Your task to perform on an android device: uninstall "PlayWell" Image 0: 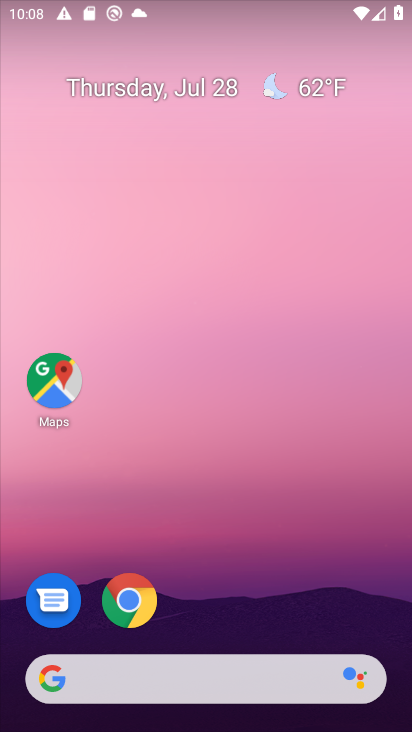
Step 0: drag from (241, 640) to (262, 42)
Your task to perform on an android device: uninstall "PlayWell" Image 1: 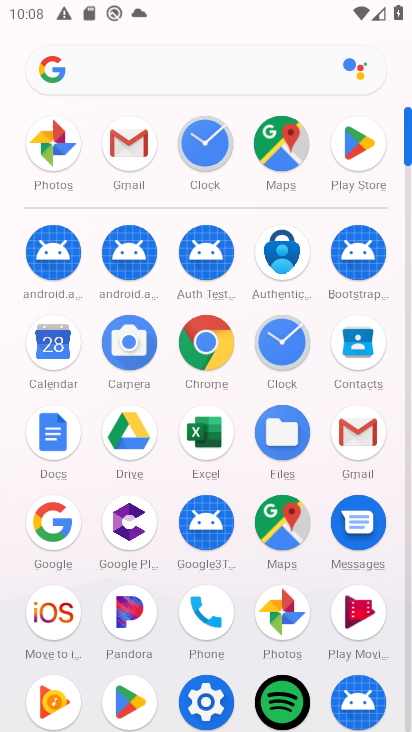
Step 1: click (354, 151)
Your task to perform on an android device: uninstall "PlayWell" Image 2: 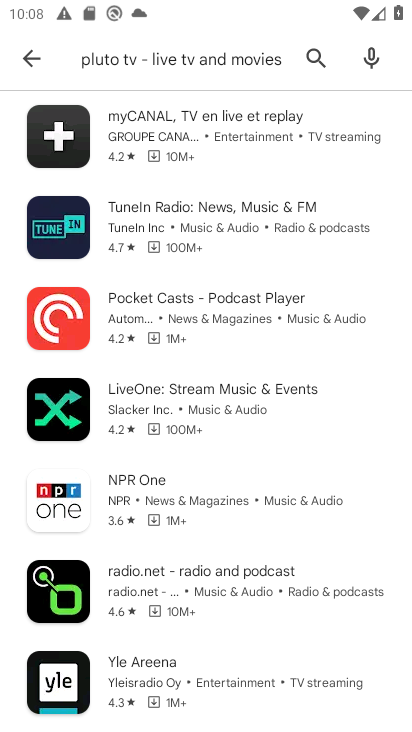
Step 2: click (317, 59)
Your task to perform on an android device: uninstall "PlayWell" Image 3: 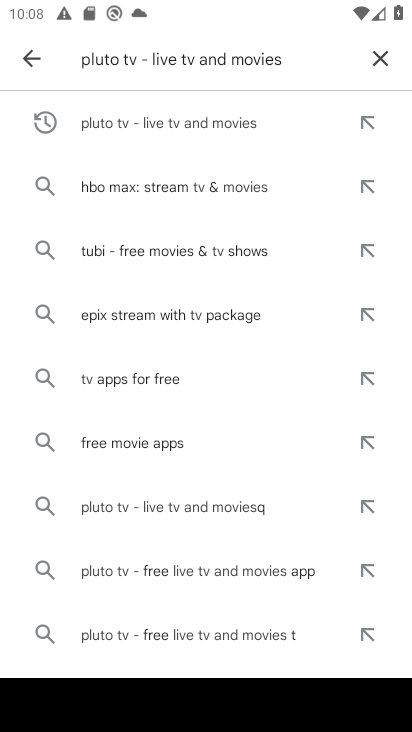
Step 3: click (372, 66)
Your task to perform on an android device: uninstall "PlayWell" Image 4: 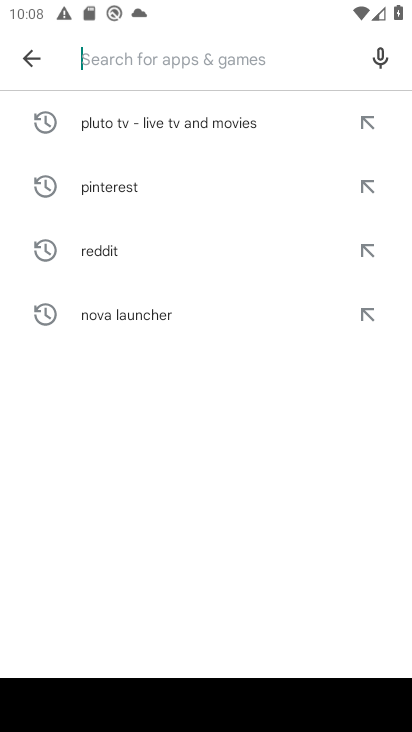
Step 4: click (277, 69)
Your task to perform on an android device: uninstall "PlayWell" Image 5: 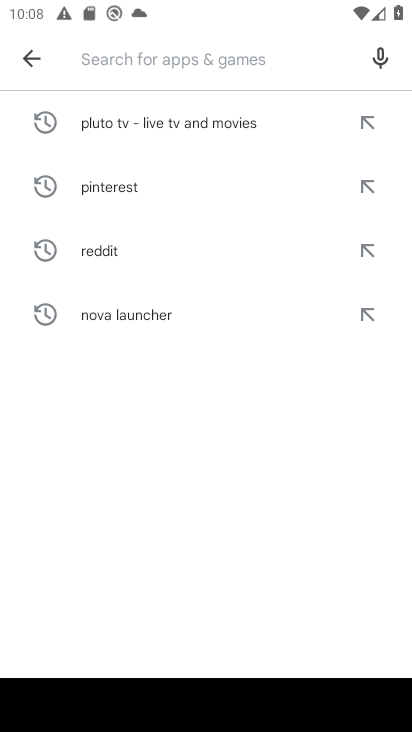
Step 5: type "PlayWell"
Your task to perform on an android device: uninstall "PlayWell" Image 6: 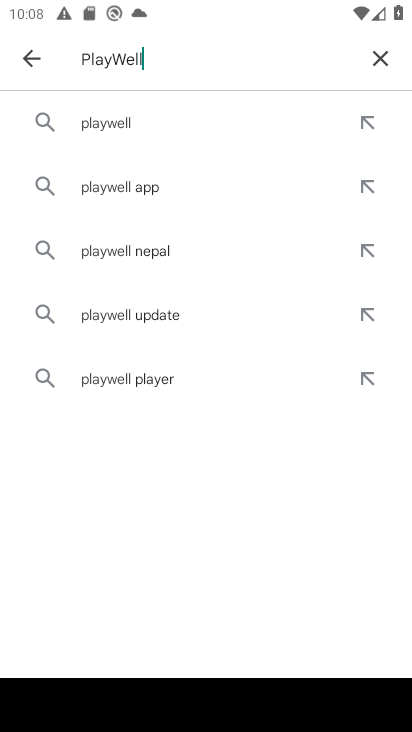
Step 6: click (112, 180)
Your task to perform on an android device: uninstall "PlayWell" Image 7: 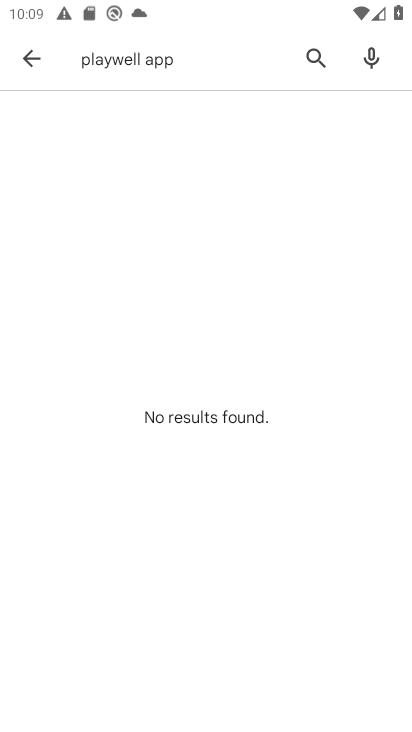
Step 7: task complete